Your task to perform on an android device: check storage Image 0: 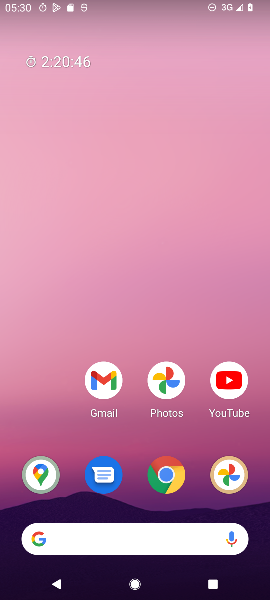
Step 0: press home button
Your task to perform on an android device: check storage Image 1: 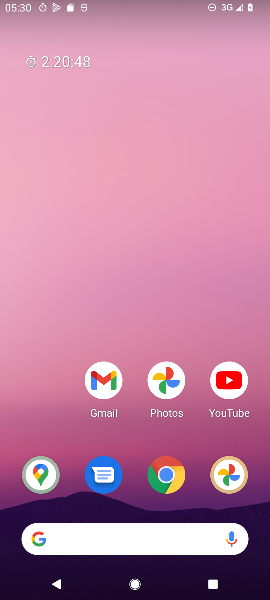
Step 1: drag from (62, 436) to (58, 246)
Your task to perform on an android device: check storage Image 2: 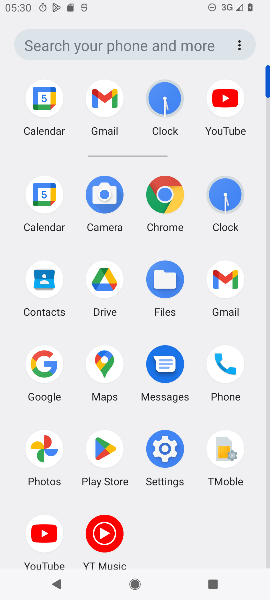
Step 2: click (165, 448)
Your task to perform on an android device: check storage Image 3: 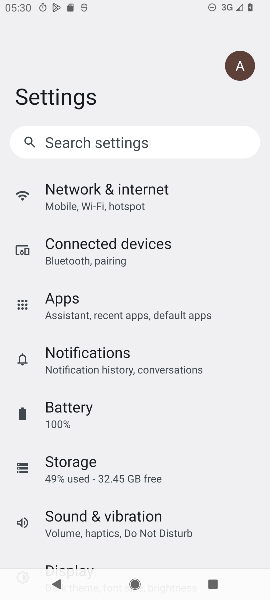
Step 3: drag from (229, 452) to (232, 357)
Your task to perform on an android device: check storage Image 4: 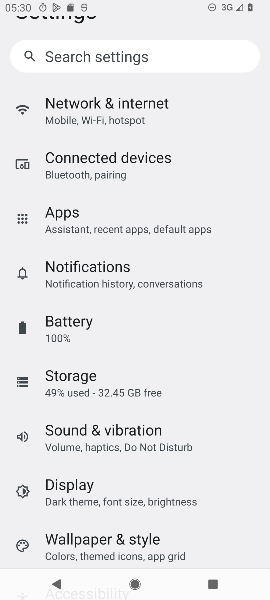
Step 4: drag from (232, 438) to (231, 340)
Your task to perform on an android device: check storage Image 5: 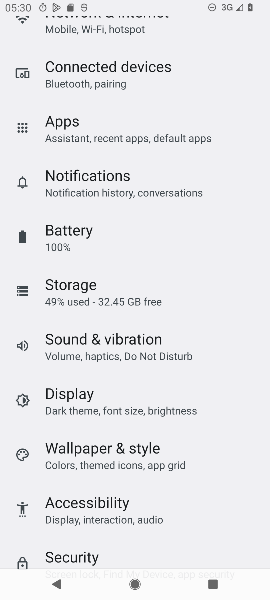
Step 5: drag from (232, 434) to (232, 316)
Your task to perform on an android device: check storage Image 6: 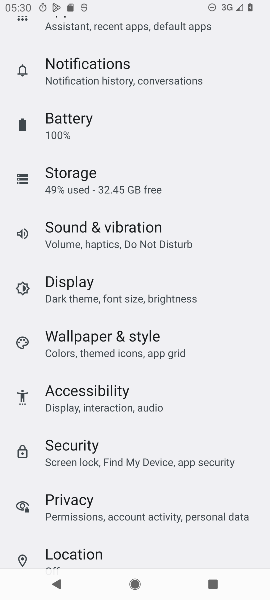
Step 6: drag from (241, 387) to (249, 306)
Your task to perform on an android device: check storage Image 7: 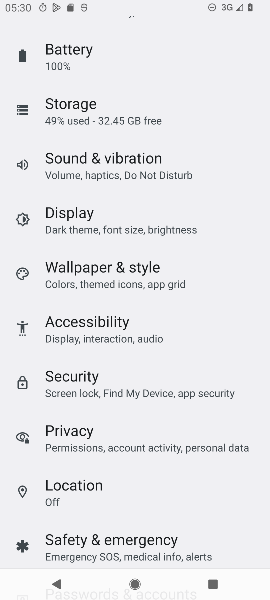
Step 7: drag from (215, 458) to (224, 374)
Your task to perform on an android device: check storage Image 8: 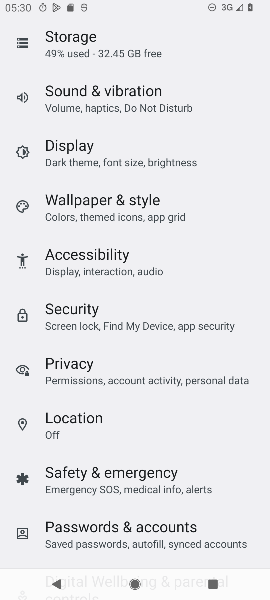
Step 8: drag from (224, 257) to (225, 341)
Your task to perform on an android device: check storage Image 9: 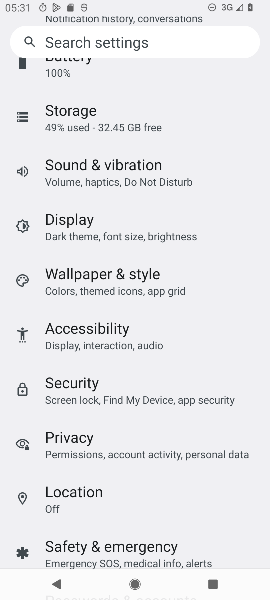
Step 9: drag from (233, 199) to (237, 310)
Your task to perform on an android device: check storage Image 10: 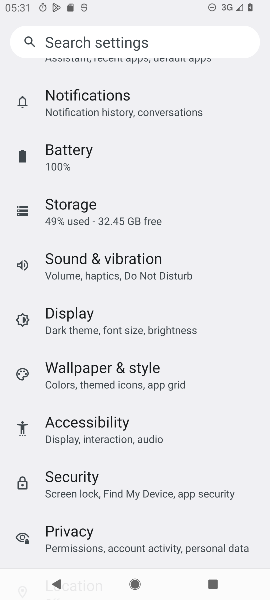
Step 10: drag from (222, 188) to (234, 328)
Your task to perform on an android device: check storage Image 11: 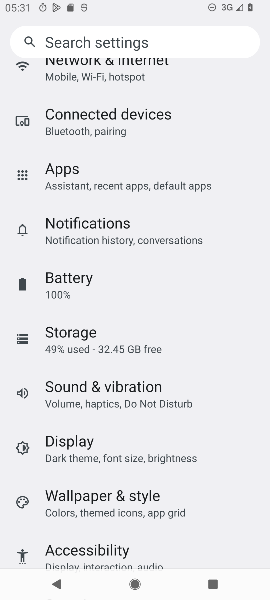
Step 11: click (157, 346)
Your task to perform on an android device: check storage Image 12: 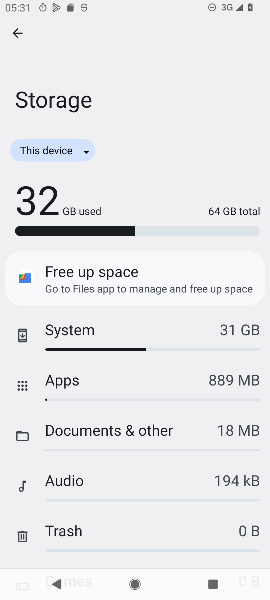
Step 12: task complete